Your task to perform on an android device: Search for vegetarian restaurants on Maps Image 0: 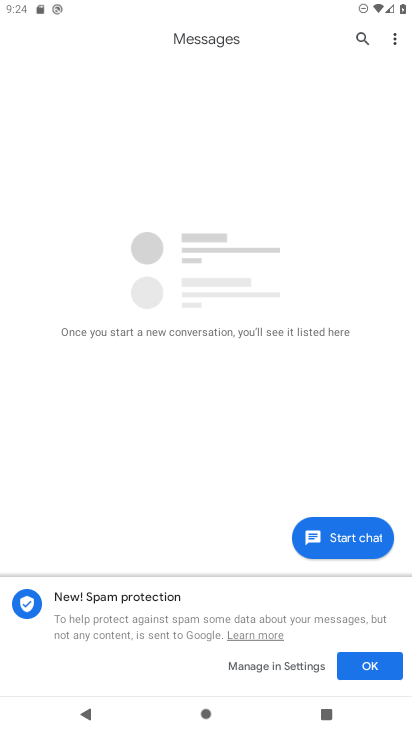
Step 0: press home button
Your task to perform on an android device: Search for vegetarian restaurants on Maps Image 1: 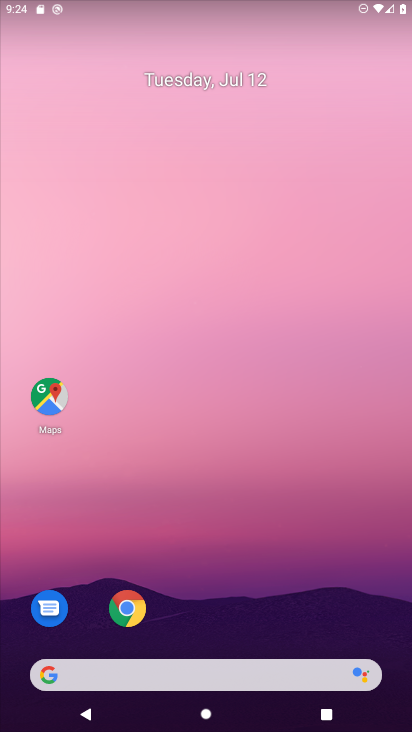
Step 1: click (53, 400)
Your task to perform on an android device: Search for vegetarian restaurants on Maps Image 2: 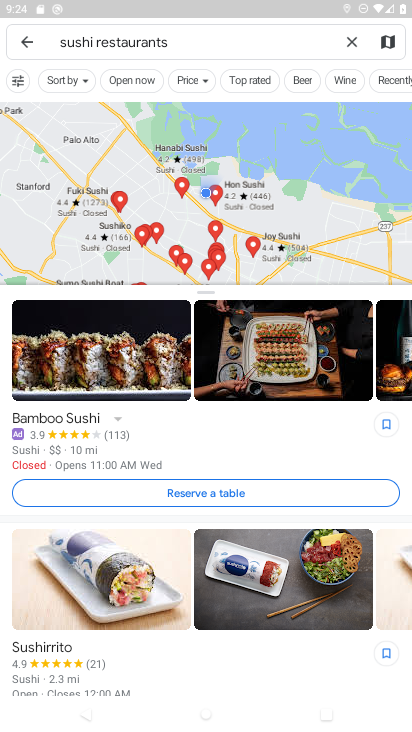
Step 2: click (350, 42)
Your task to perform on an android device: Search for vegetarian restaurants on Maps Image 3: 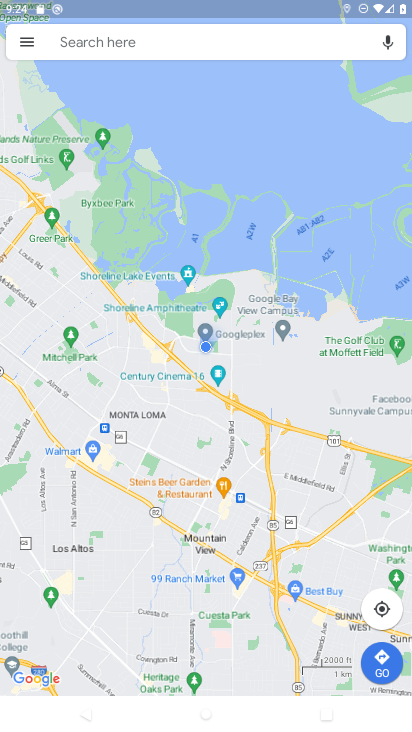
Step 3: click (210, 43)
Your task to perform on an android device: Search for vegetarian restaurants on Maps Image 4: 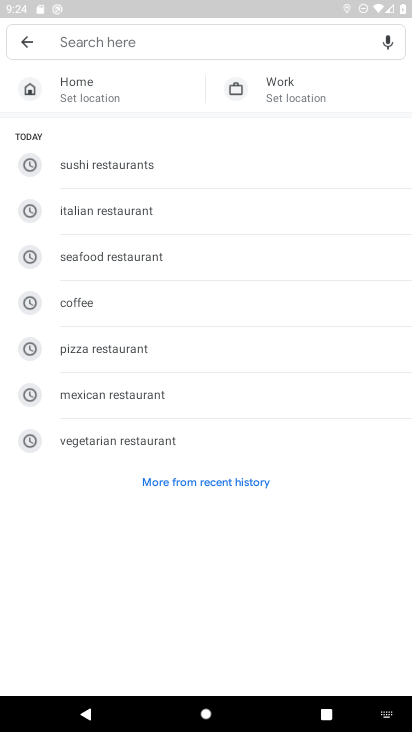
Step 4: click (127, 436)
Your task to perform on an android device: Search for vegetarian restaurants on Maps Image 5: 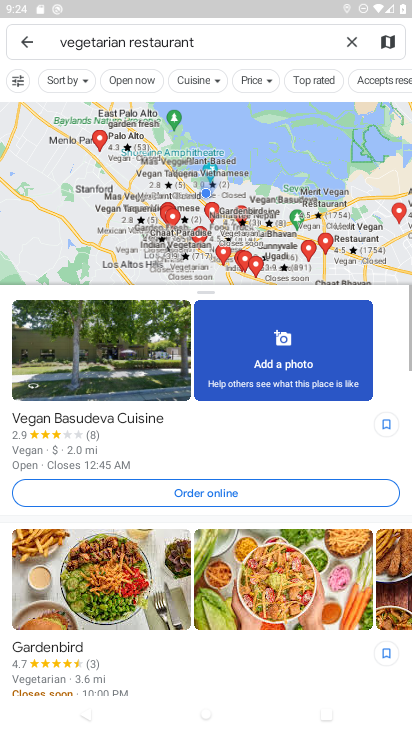
Step 5: task complete